Your task to perform on an android device: turn on bluetooth scan Image 0: 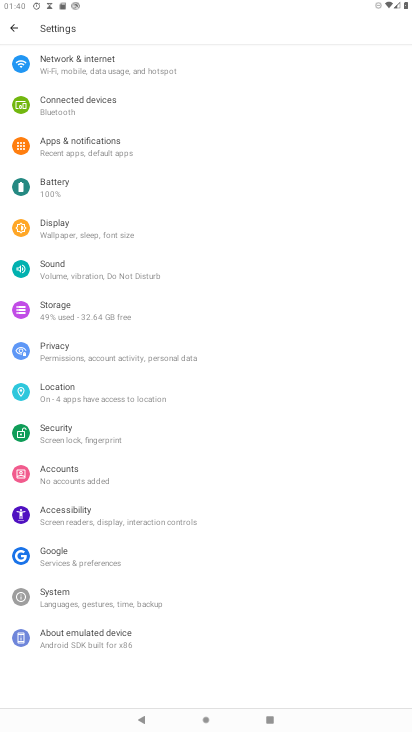
Step 0: click (108, 104)
Your task to perform on an android device: turn on bluetooth scan Image 1: 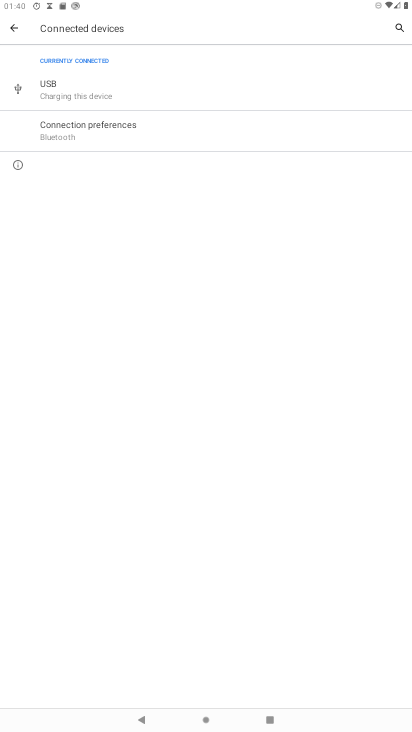
Step 1: click (80, 131)
Your task to perform on an android device: turn on bluetooth scan Image 2: 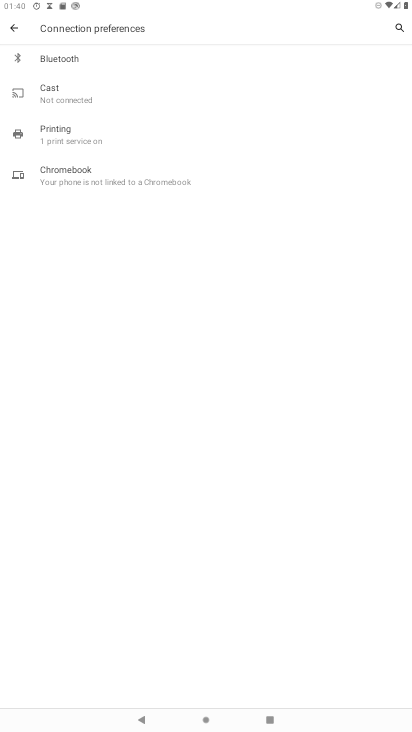
Step 2: click (107, 49)
Your task to perform on an android device: turn on bluetooth scan Image 3: 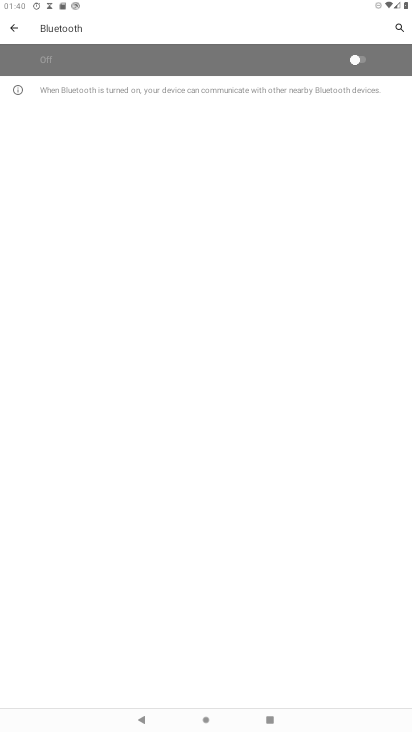
Step 3: task complete